Your task to perform on an android device: turn on improve location accuracy Image 0: 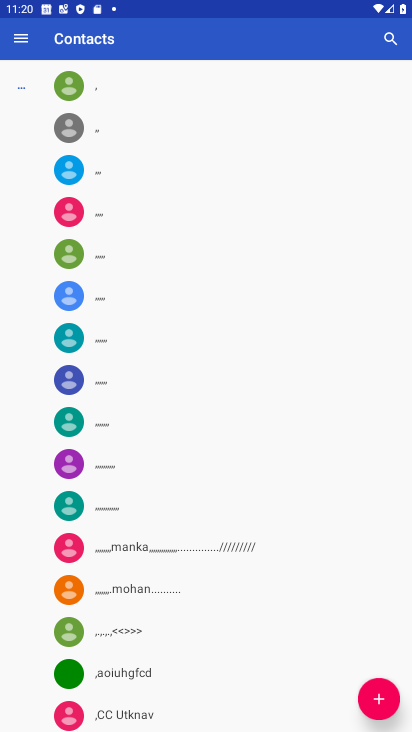
Step 0: press home button
Your task to perform on an android device: turn on improve location accuracy Image 1: 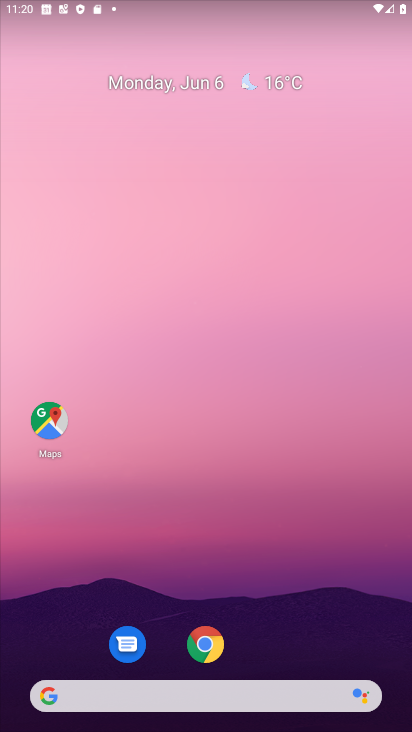
Step 1: drag from (309, 635) to (219, 121)
Your task to perform on an android device: turn on improve location accuracy Image 2: 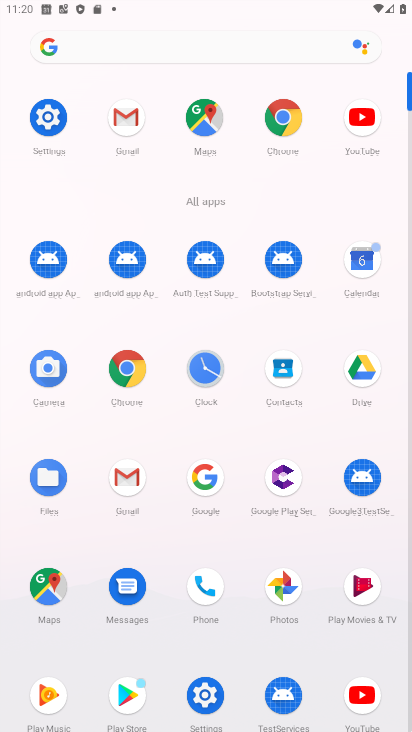
Step 2: click (48, 123)
Your task to perform on an android device: turn on improve location accuracy Image 3: 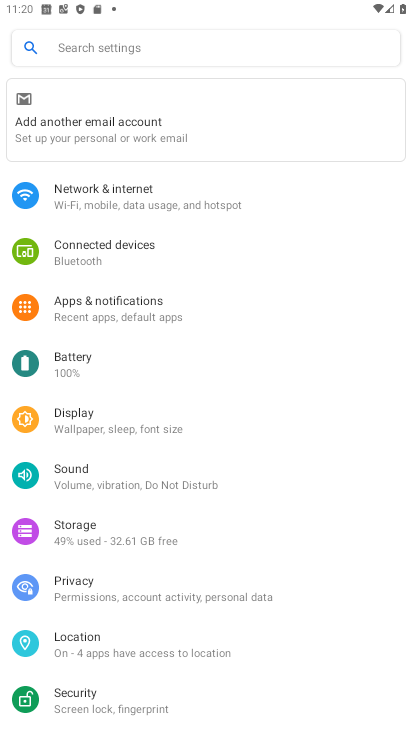
Step 3: click (207, 635)
Your task to perform on an android device: turn on improve location accuracy Image 4: 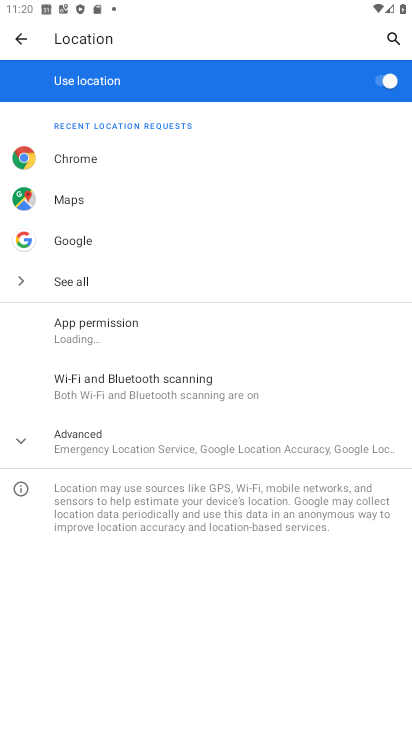
Step 4: click (273, 448)
Your task to perform on an android device: turn on improve location accuracy Image 5: 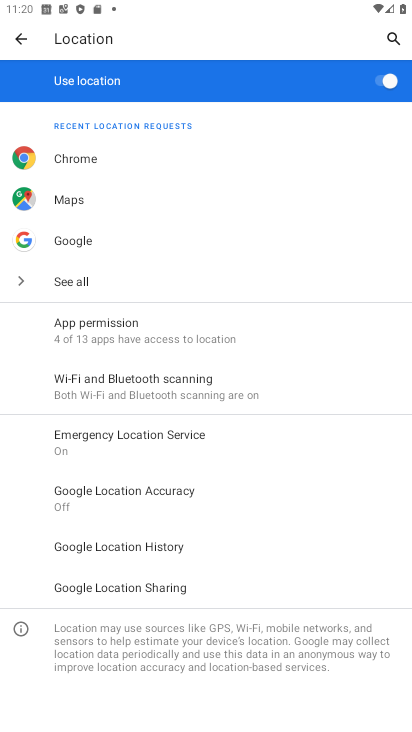
Step 5: click (262, 493)
Your task to perform on an android device: turn on improve location accuracy Image 6: 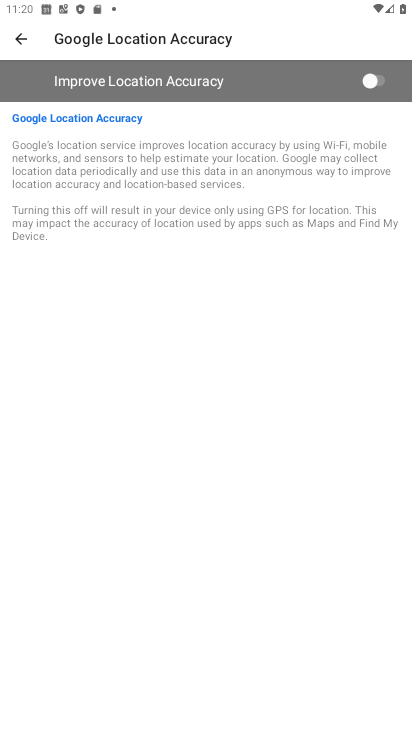
Step 6: click (371, 82)
Your task to perform on an android device: turn on improve location accuracy Image 7: 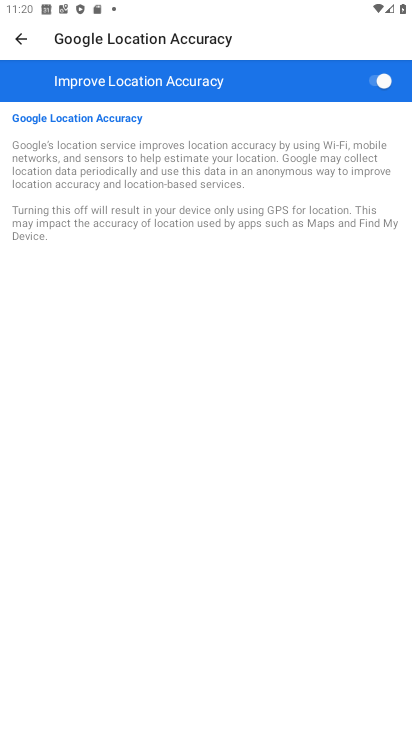
Step 7: task complete